Your task to perform on an android device: Is it going to rain tomorrow? Image 0: 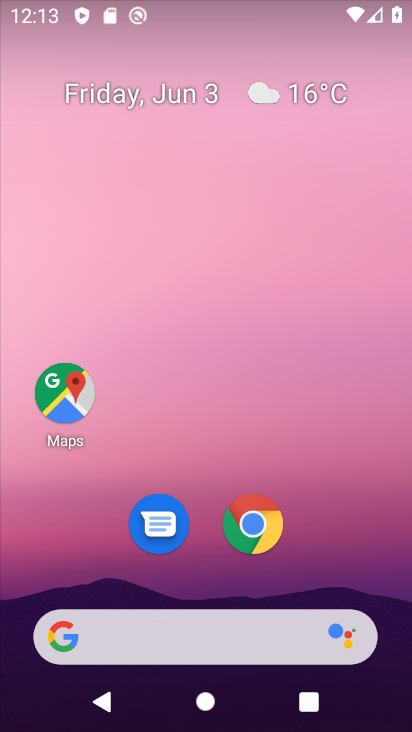
Step 0: click (270, 94)
Your task to perform on an android device: Is it going to rain tomorrow? Image 1: 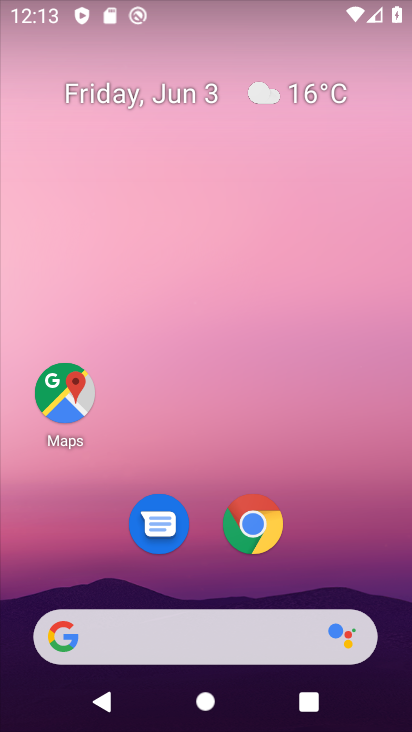
Step 1: click (281, 88)
Your task to perform on an android device: Is it going to rain tomorrow? Image 2: 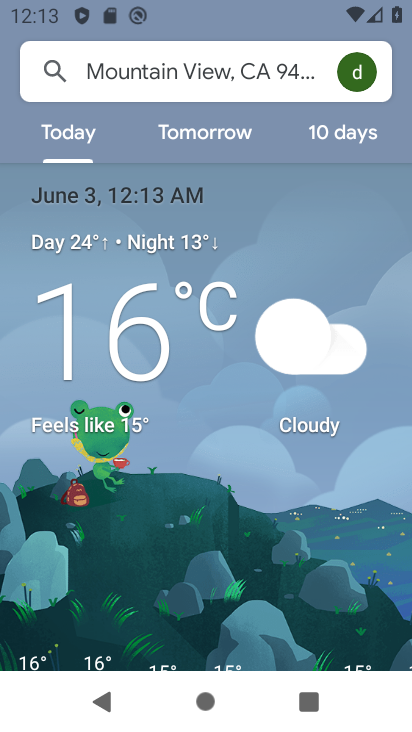
Step 2: click (207, 132)
Your task to perform on an android device: Is it going to rain tomorrow? Image 3: 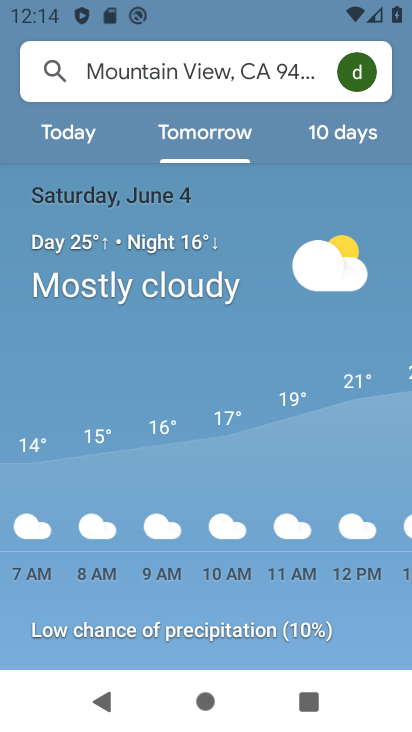
Step 3: task complete